Your task to perform on an android device: Open Android settings Image 0: 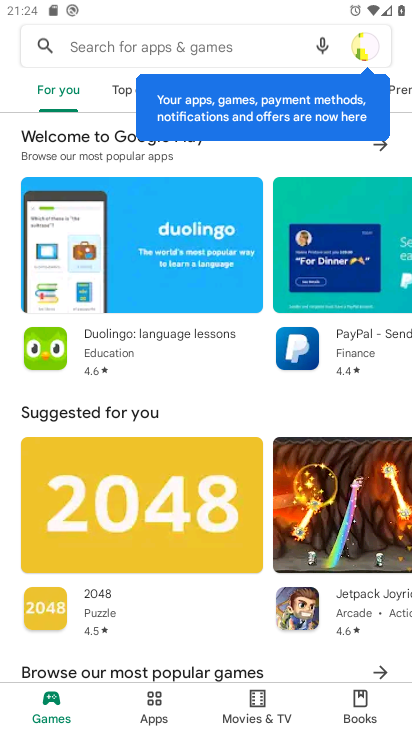
Step 0: press home button
Your task to perform on an android device: Open Android settings Image 1: 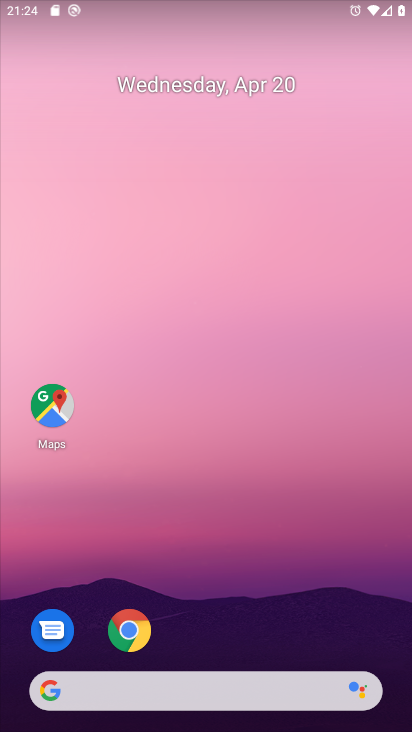
Step 1: drag from (249, 634) to (227, 39)
Your task to perform on an android device: Open Android settings Image 2: 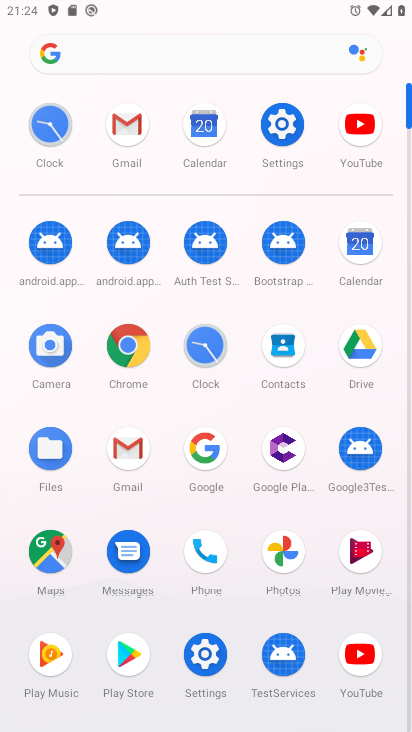
Step 2: click (276, 113)
Your task to perform on an android device: Open Android settings Image 3: 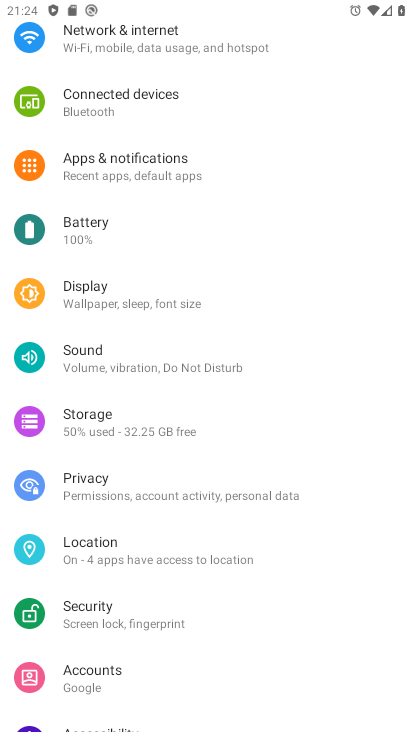
Step 3: drag from (277, 571) to (241, 128)
Your task to perform on an android device: Open Android settings Image 4: 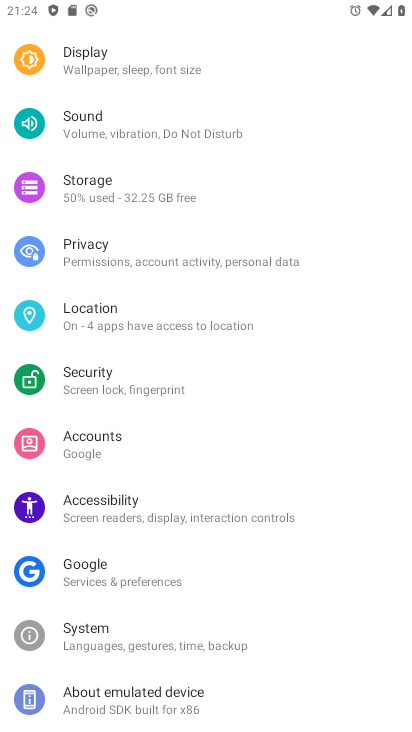
Step 4: click (157, 710)
Your task to perform on an android device: Open Android settings Image 5: 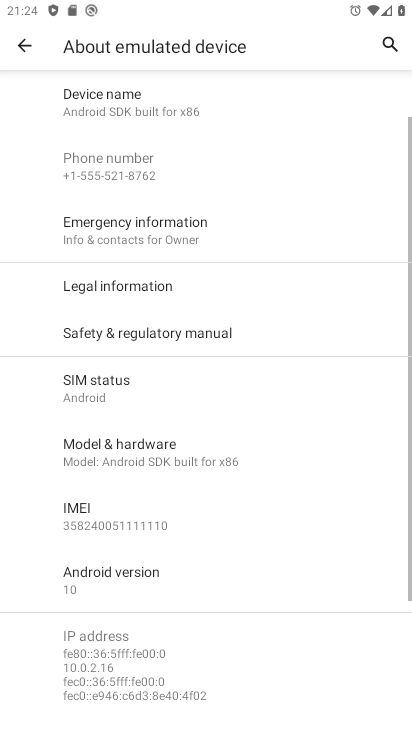
Step 5: click (152, 571)
Your task to perform on an android device: Open Android settings Image 6: 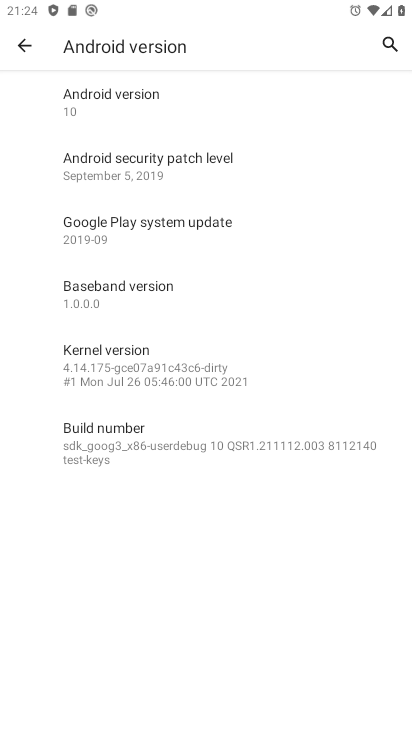
Step 6: click (136, 112)
Your task to perform on an android device: Open Android settings Image 7: 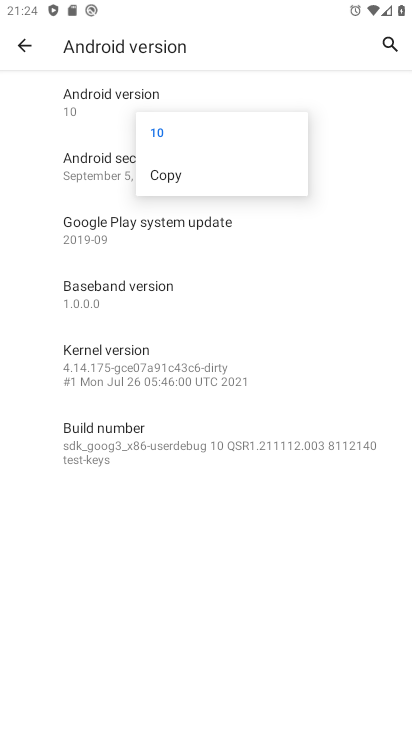
Step 7: click (131, 100)
Your task to perform on an android device: Open Android settings Image 8: 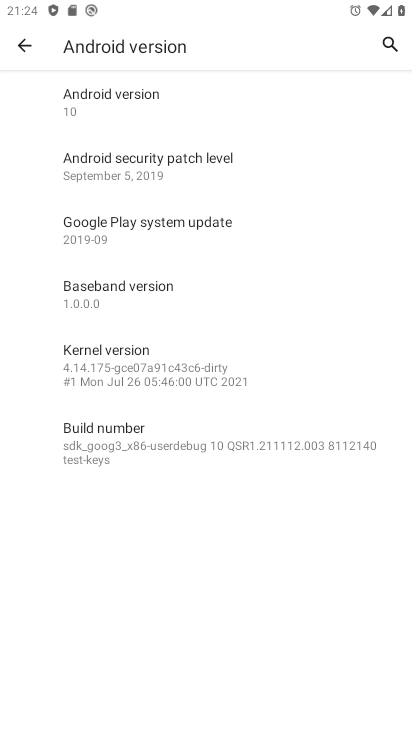
Step 8: task complete